Your task to perform on an android device: turn off location Image 0: 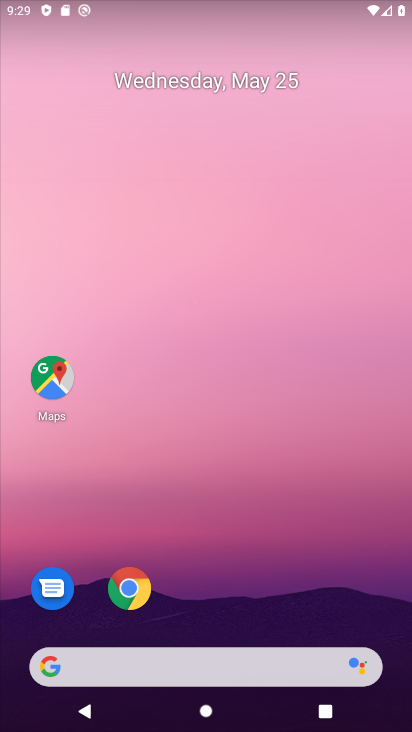
Step 0: drag from (250, 564) to (375, 2)
Your task to perform on an android device: turn off location Image 1: 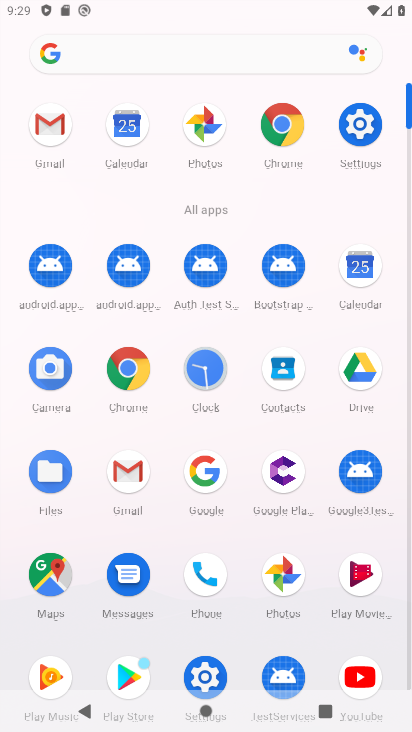
Step 1: click (354, 124)
Your task to perform on an android device: turn off location Image 2: 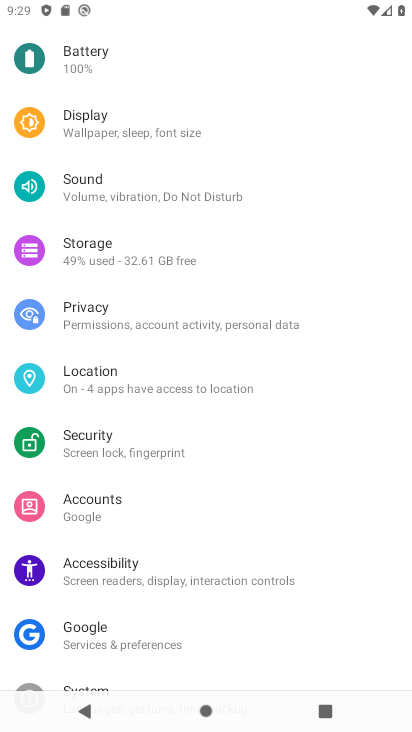
Step 2: click (141, 397)
Your task to perform on an android device: turn off location Image 3: 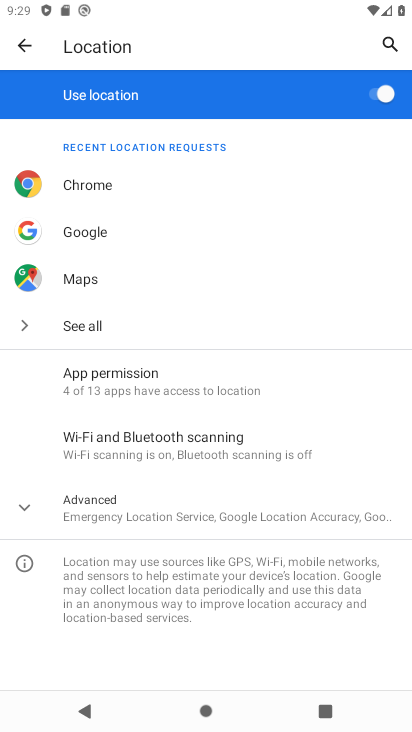
Step 3: click (381, 97)
Your task to perform on an android device: turn off location Image 4: 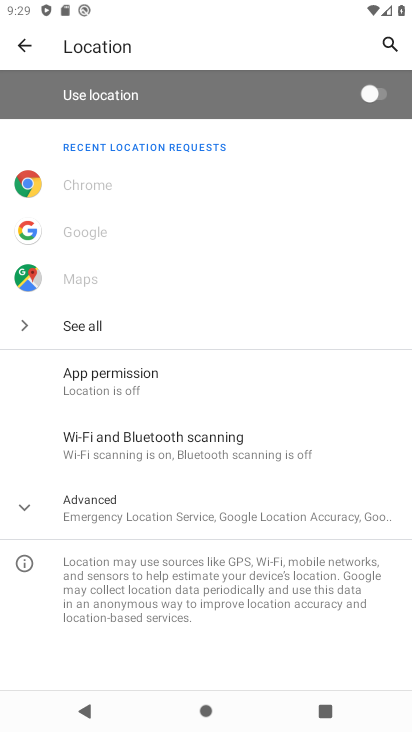
Step 4: task complete